Your task to perform on an android device: Search for sushi restaurants on Maps Image 0: 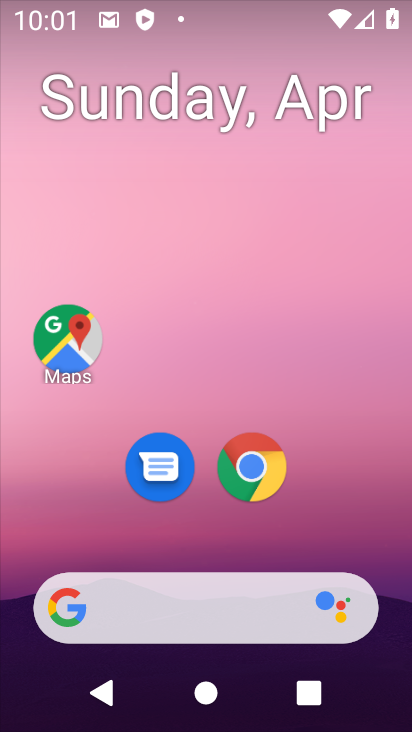
Step 0: click (80, 349)
Your task to perform on an android device: Search for sushi restaurants on Maps Image 1: 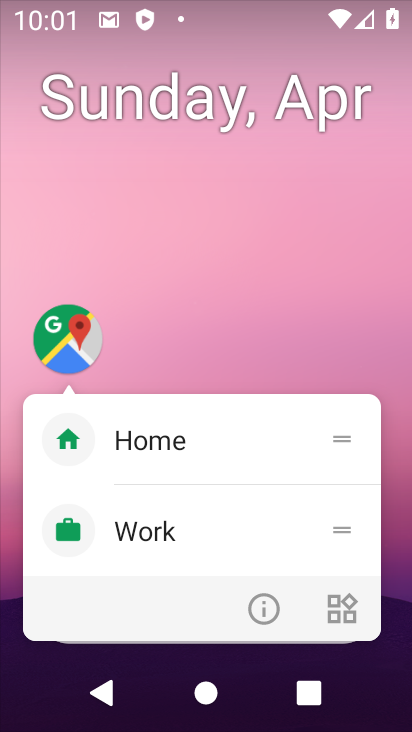
Step 1: click (80, 349)
Your task to perform on an android device: Search for sushi restaurants on Maps Image 2: 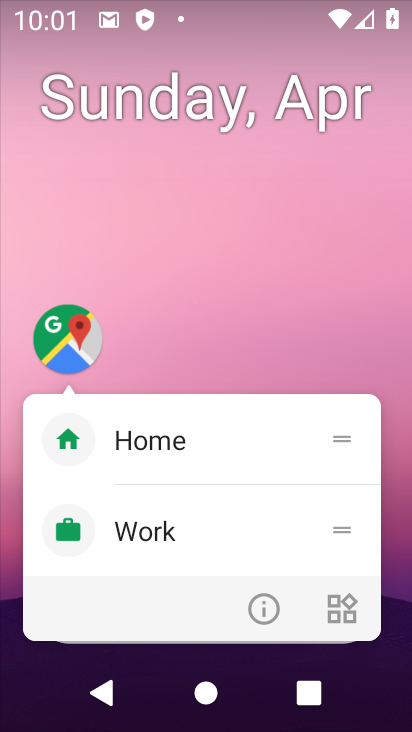
Step 2: click (67, 336)
Your task to perform on an android device: Search for sushi restaurants on Maps Image 3: 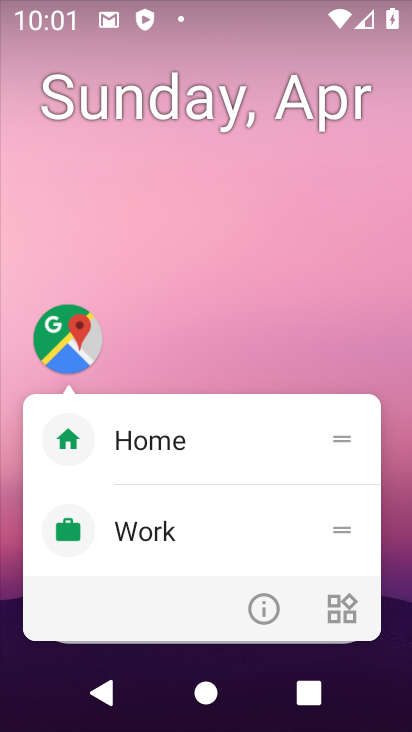
Step 3: click (88, 338)
Your task to perform on an android device: Search for sushi restaurants on Maps Image 4: 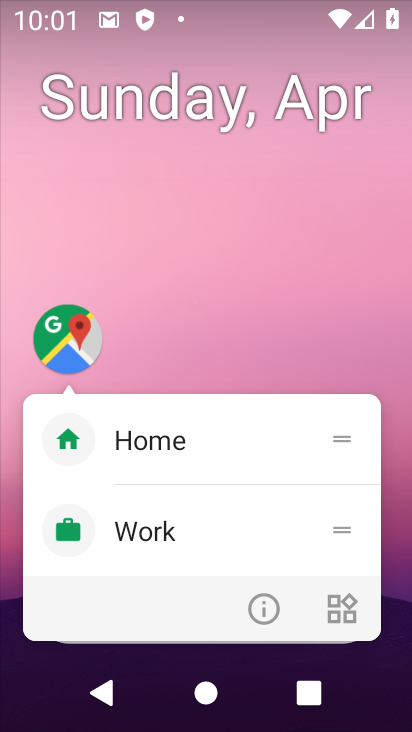
Step 4: click (82, 348)
Your task to perform on an android device: Search for sushi restaurants on Maps Image 5: 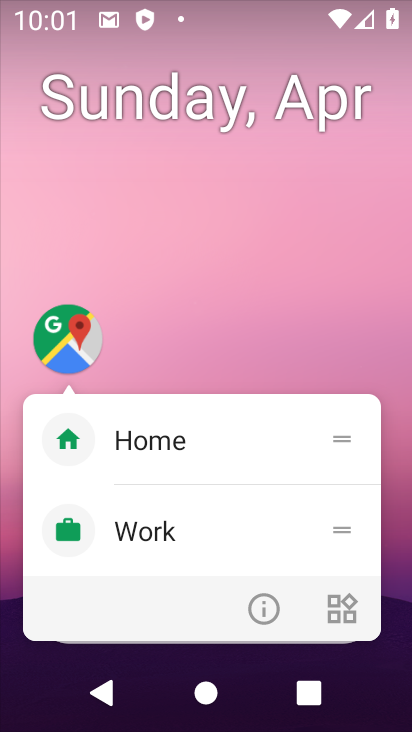
Step 5: click (68, 350)
Your task to perform on an android device: Search for sushi restaurants on Maps Image 6: 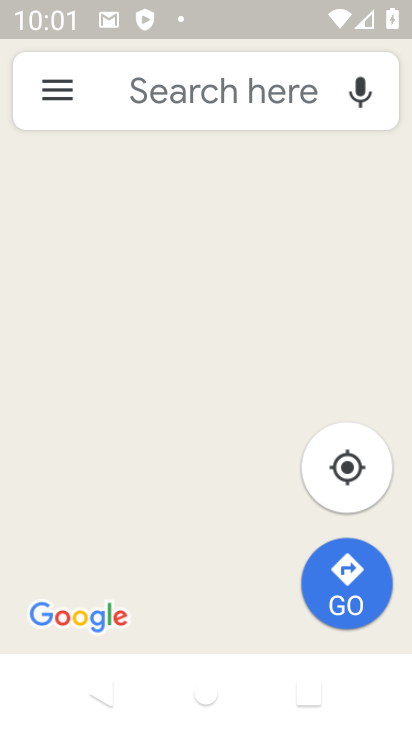
Step 6: click (240, 99)
Your task to perform on an android device: Search for sushi restaurants on Maps Image 7: 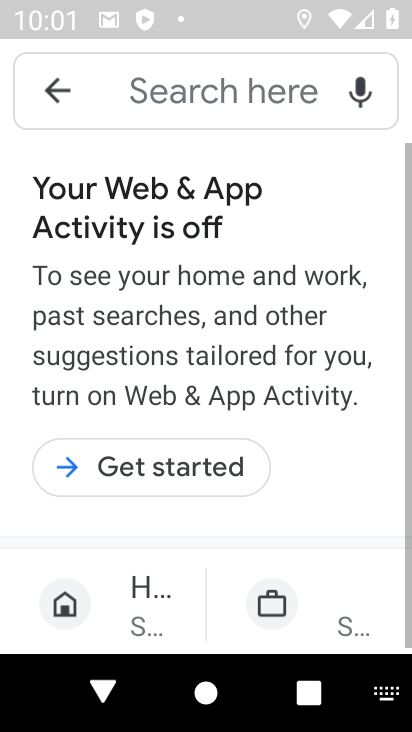
Step 7: type "sushi restaurants"
Your task to perform on an android device: Search for sushi restaurants on Maps Image 8: 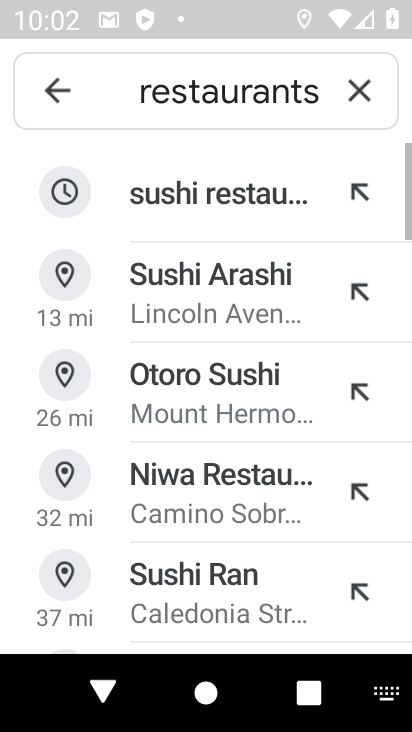
Step 8: click (246, 219)
Your task to perform on an android device: Search for sushi restaurants on Maps Image 9: 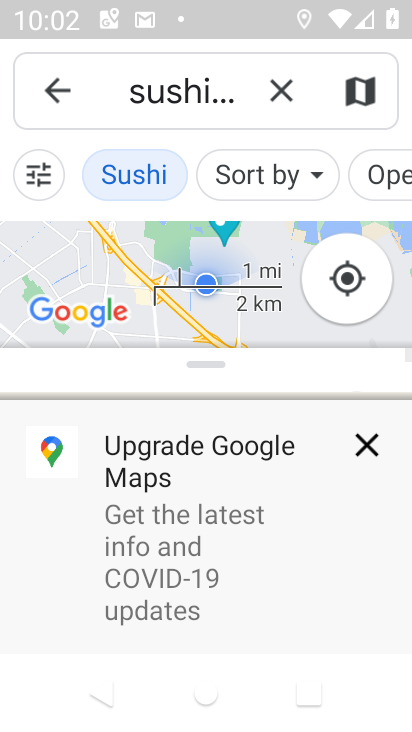
Step 9: click (356, 445)
Your task to perform on an android device: Search for sushi restaurants on Maps Image 10: 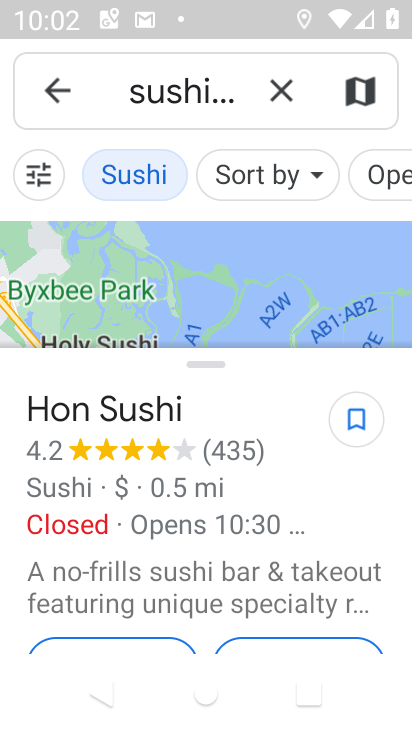
Step 10: task complete